Your task to perform on an android device: open chrome privacy settings Image 0: 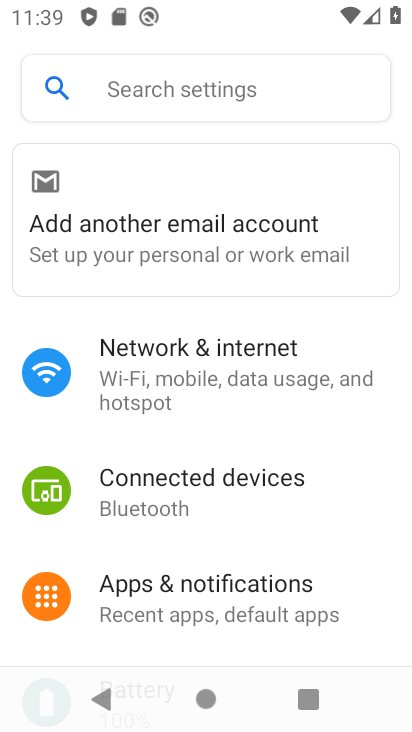
Step 0: press home button
Your task to perform on an android device: open chrome privacy settings Image 1: 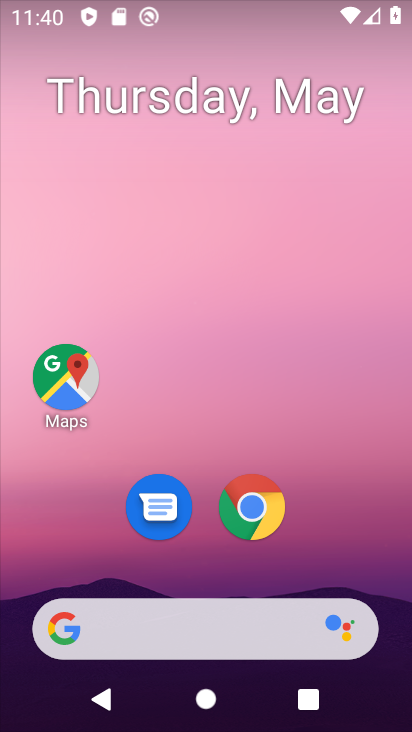
Step 1: drag from (246, 645) to (216, 82)
Your task to perform on an android device: open chrome privacy settings Image 2: 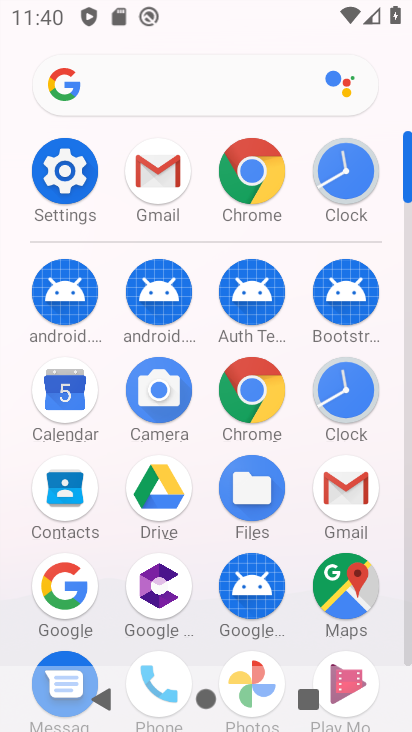
Step 2: click (250, 177)
Your task to perform on an android device: open chrome privacy settings Image 3: 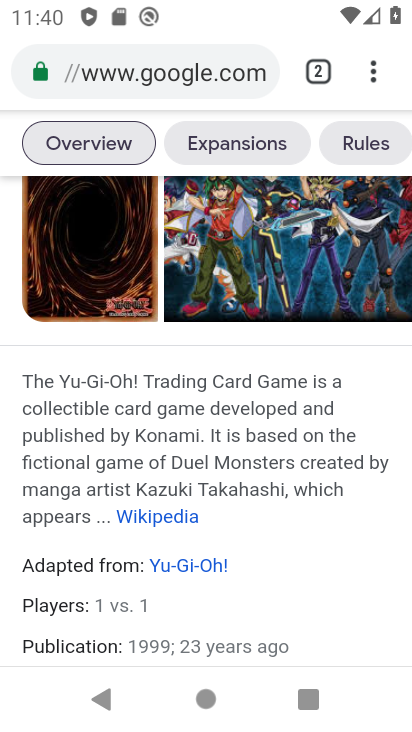
Step 3: click (372, 84)
Your task to perform on an android device: open chrome privacy settings Image 4: 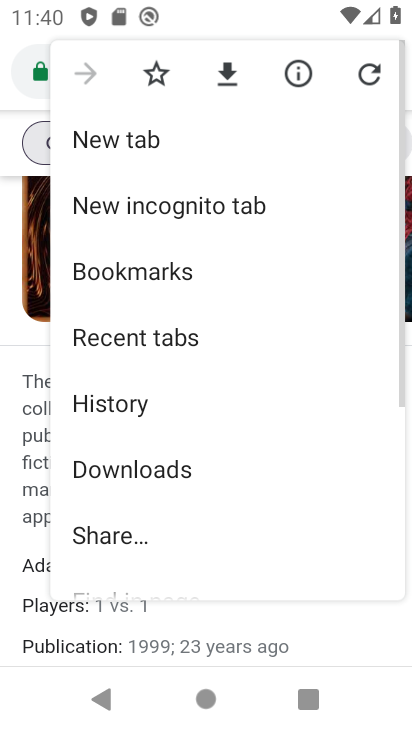
Step 4: drag from (204, 447) to (267, 9)
Your task to perform on an android device: open chrome privacy settings Image 5: 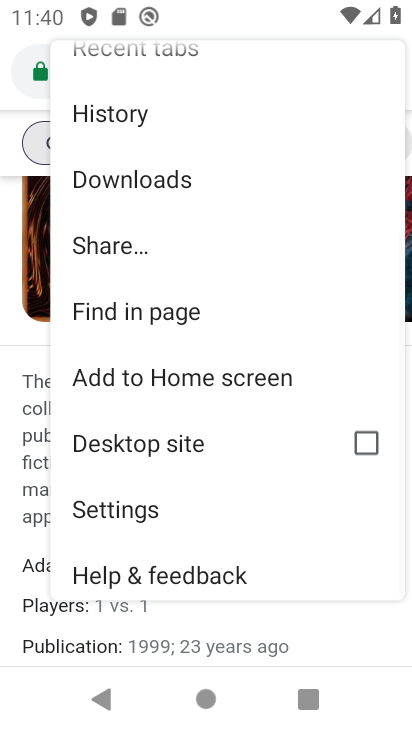
Step 5: click (162, 510)
Your task to perform on an android device: open chrome privacy settings Image 6: 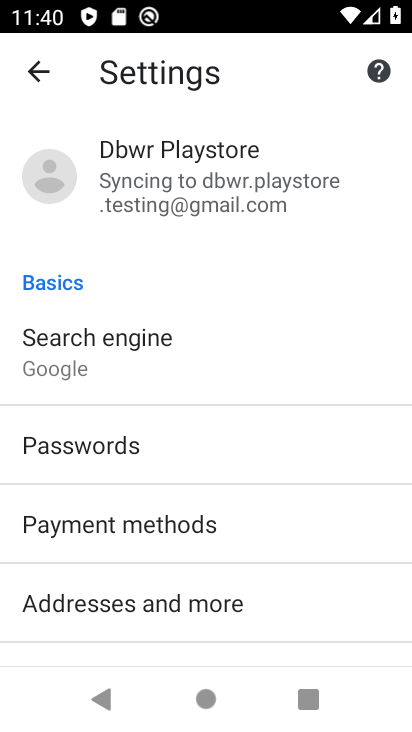
Step 6: drag from (203, 606) to (298, 228)
Your task to perform on an android device: open chrome privacy settings Image 7: 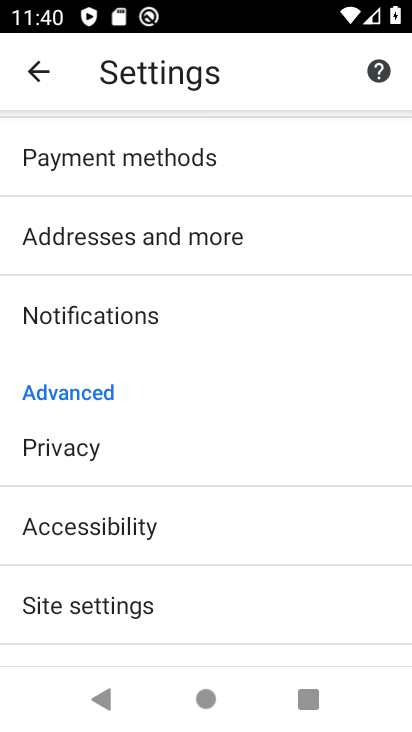
Step 7: click (138, 455)
Your task to perform on an android device: open chrome privacy settings Image 8: 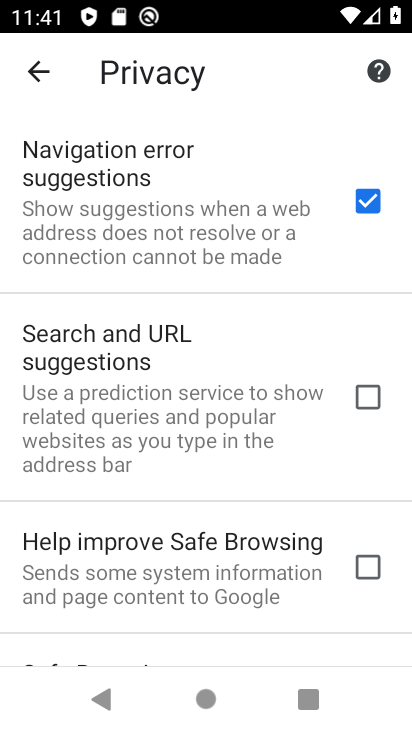
Step 8: task complete